Your task to perform on an android device: turn off improve location accuracy Image 0: 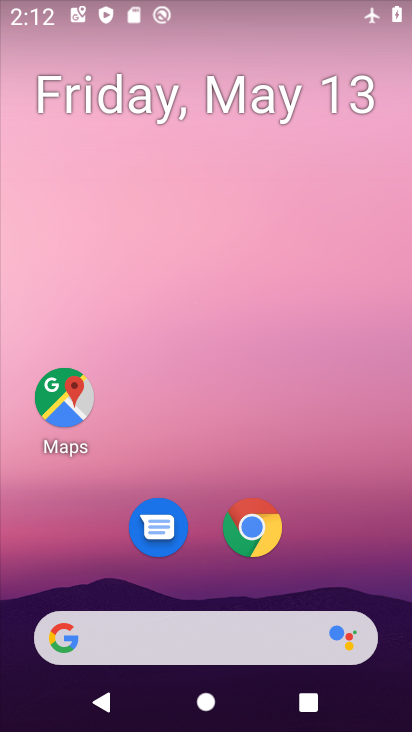
Step 0: drag from (182, 565) to (160, 34)
Your task to perform on an android device: turn off improve location accuracy Image 1: 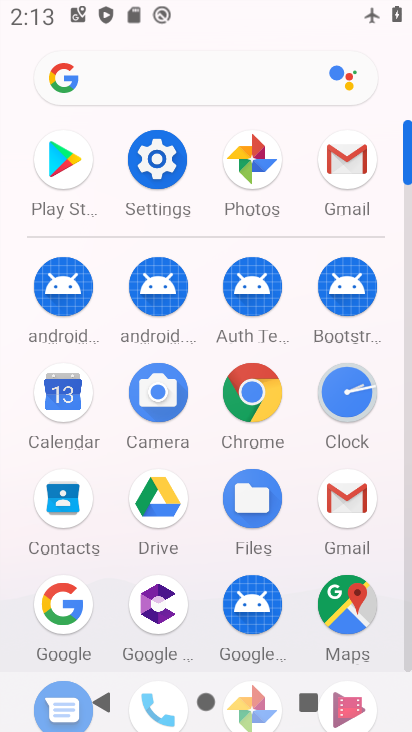
Step 1: click (195, 99)
Your task to perform on an android device: turn off improve location accuracy Image 2: 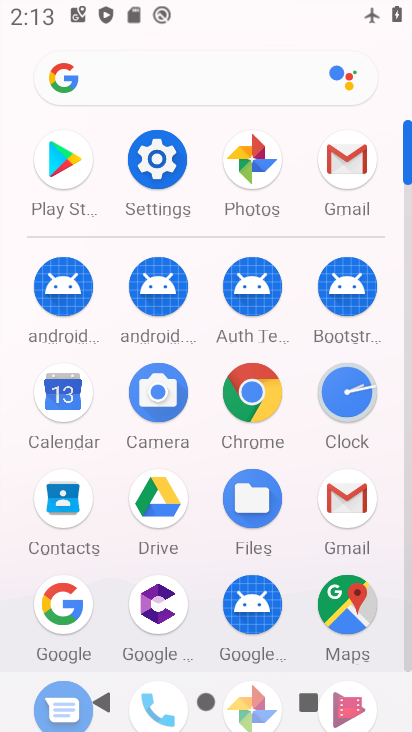
Step 2: click (147, 167)
Your task to perform on an android device: turn off improve location accuracy Image 3: 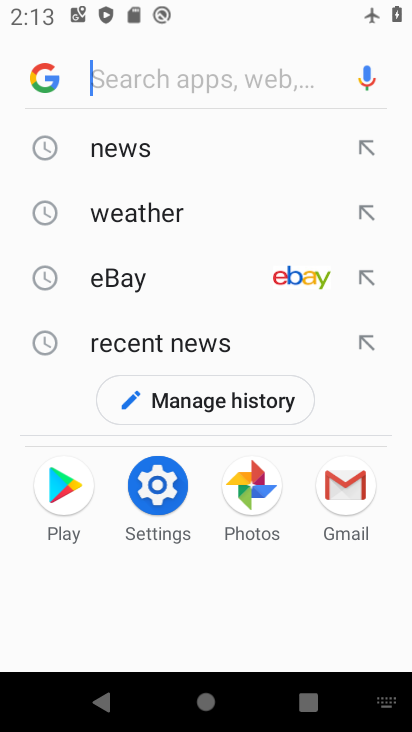
Step 3: press home button
Your task to perform on an android device: turn off improve location accuracy Image 4: 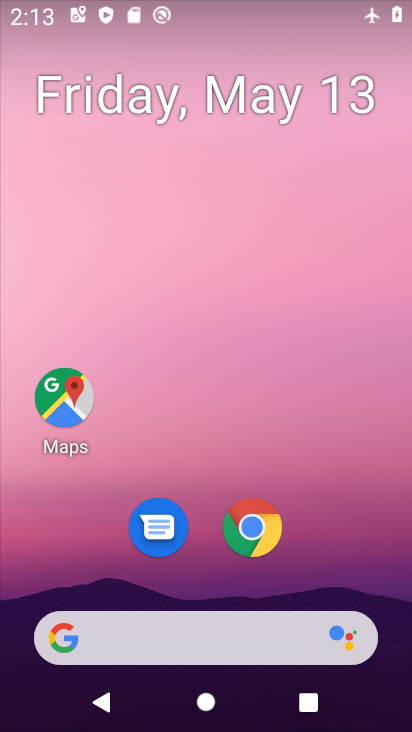
Step 4: drag from (228, 581) to (214, 232)
Your task to perform on an android device: turn off improve location accuracy Image 5: 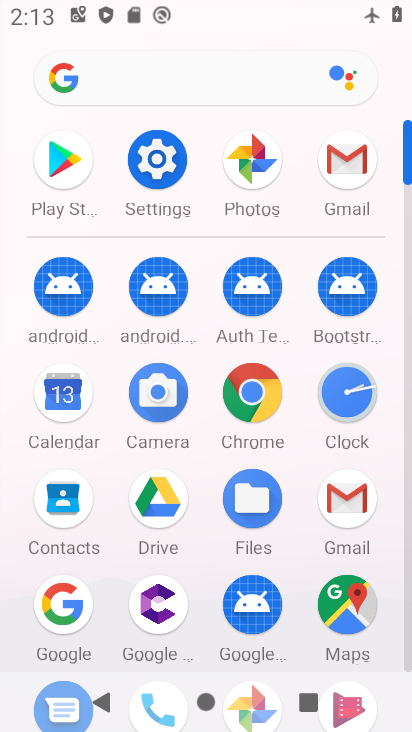
Step 5: click (151, 167)
Your task to perform on an android device: turn off improve location accuracy Image 6: 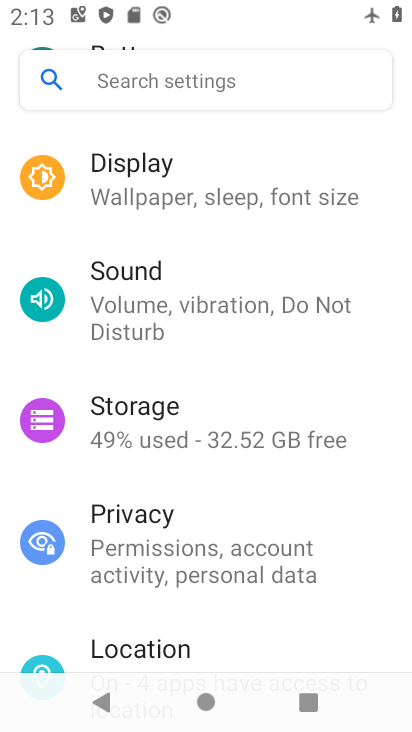
Step 6: click (117, 637)
Your task to perform on an android device: turn off improve location accuracy Image 7: 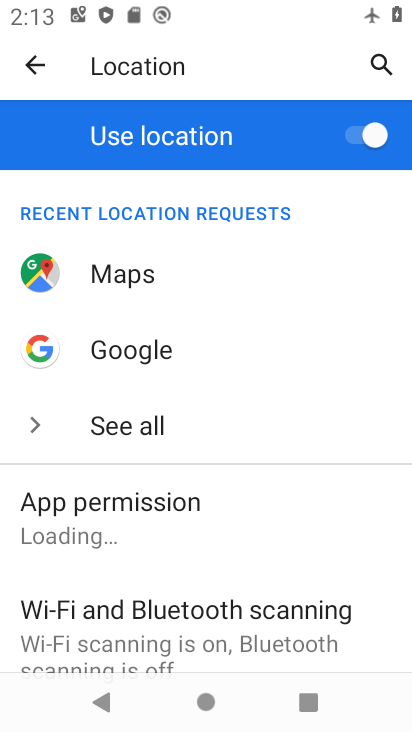
Step 7: drag from (153, 630) to (214, 167)
Your task to perform on an android device: turn off improve location accuracy Image 8: 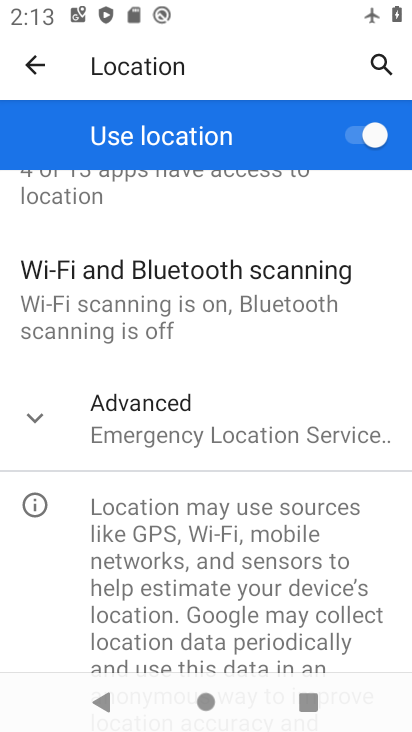
Step 8: click (183, 411)
Your task to perform on an android device: turn off improve location accuracy Image 9: 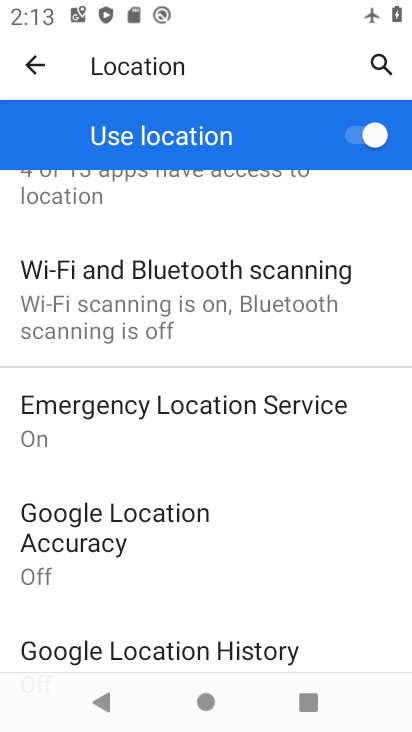
Step 9: click (125, 560)
Your task to perform on an android device: turn off improve location accuracy Image 10: 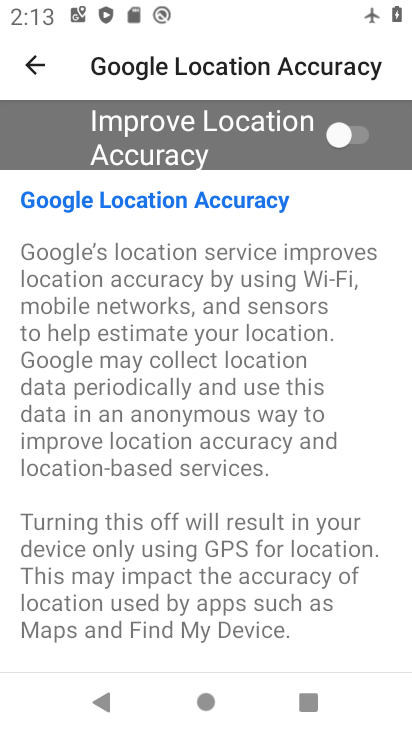
Step 10: task complete